Your task to perform on an android device: Go to privacy settings Image 0: 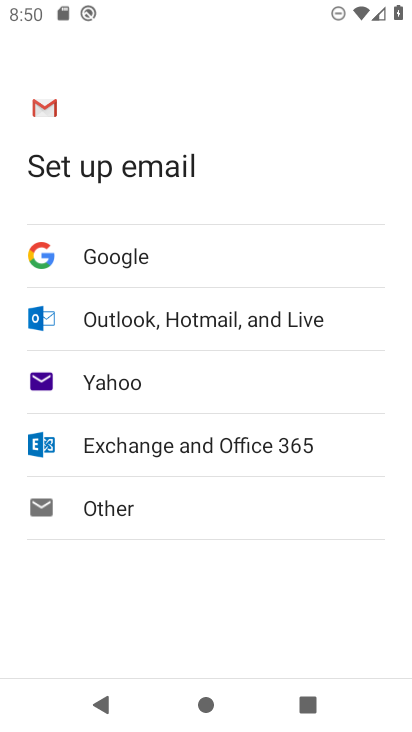
Step 0: press home button
Your task to perform on an android device: Go to privacy settings Image 1: 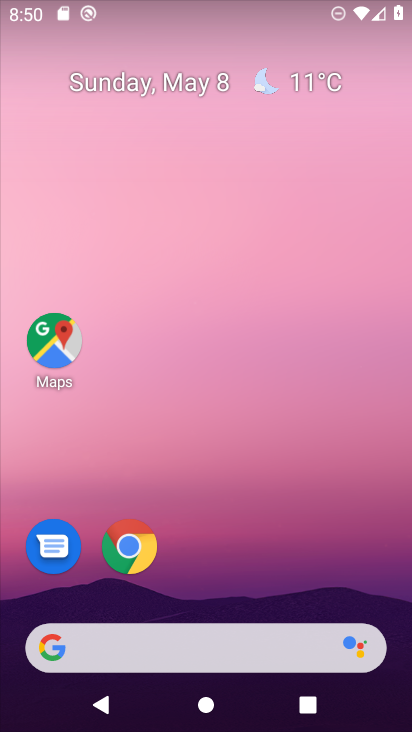
Step 1: drag from (236, 511) to (221, 14)
Your task to perform on an android device: Go to privacy settings Image 2: 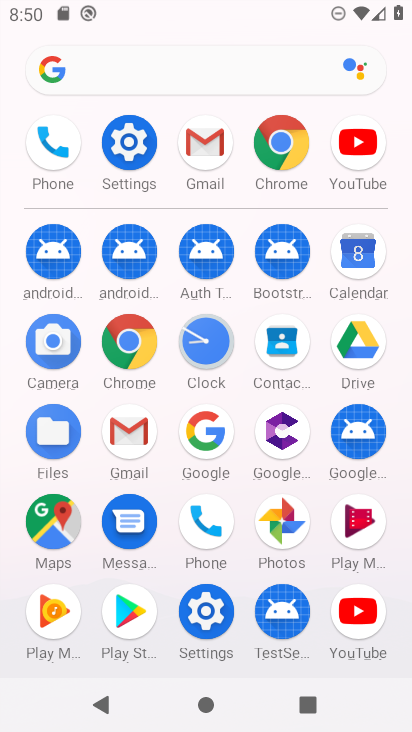
Step 2: click (137, 140)
Your task to perform on an android device: Go to privacy settings Image 3: 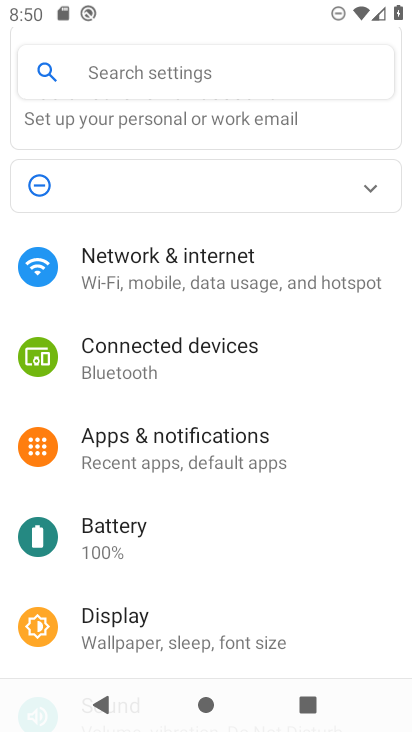
Step 3: drag from (227, 585) to (277, 72)
Your task to perform on an android device: Go to privacy settings Image 4: 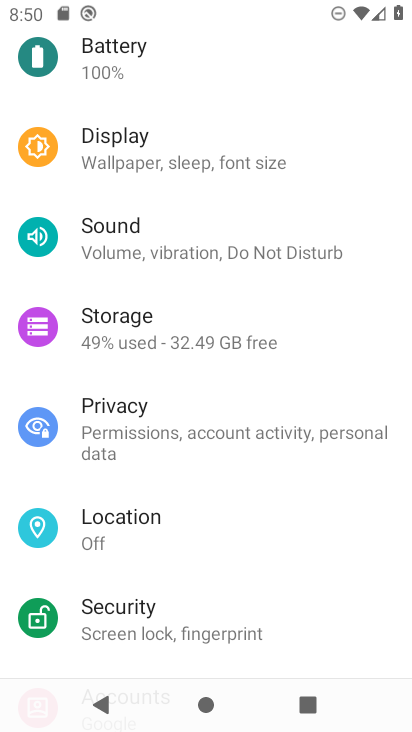
Step 4: click (253, 420)
Your task to perform on an android device: Go to privacy settings Image 5: 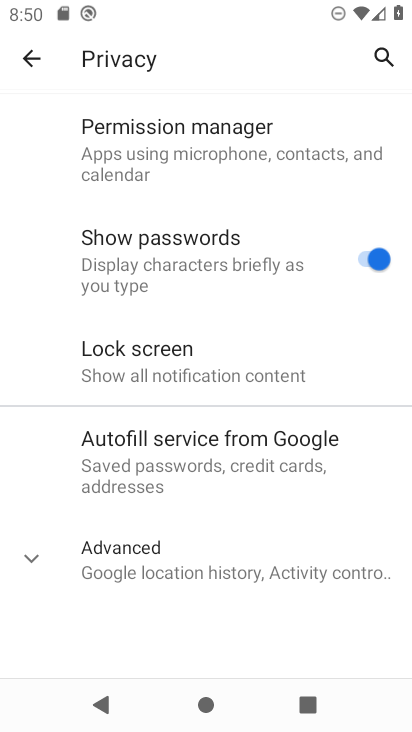
Step 5: task complete